Your task to perform on an android device: Open Amazon Image 0: 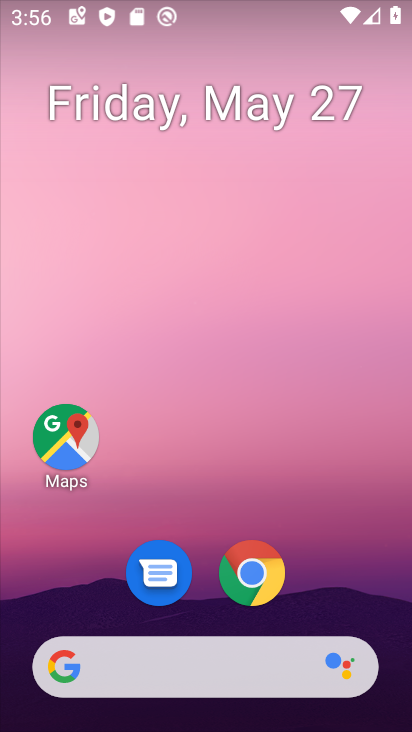
Step 0: drag from (384, 616) to (385, 222)
Your task to perform on an android device: Open Amazon Image 1: 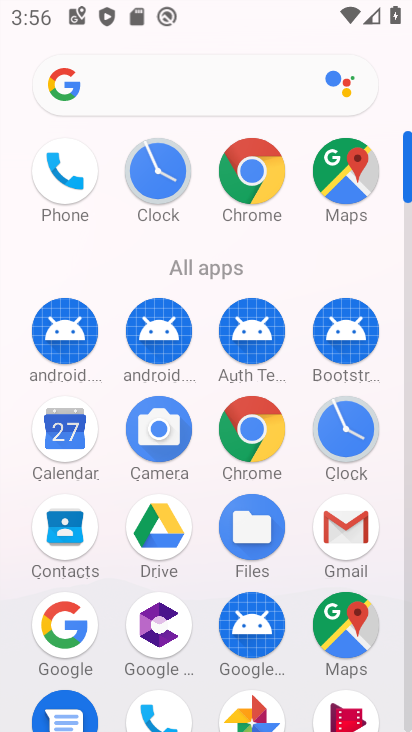
Step 1: click (274, 437)
Your task to perform on an android device: Open Amazon Image 2: 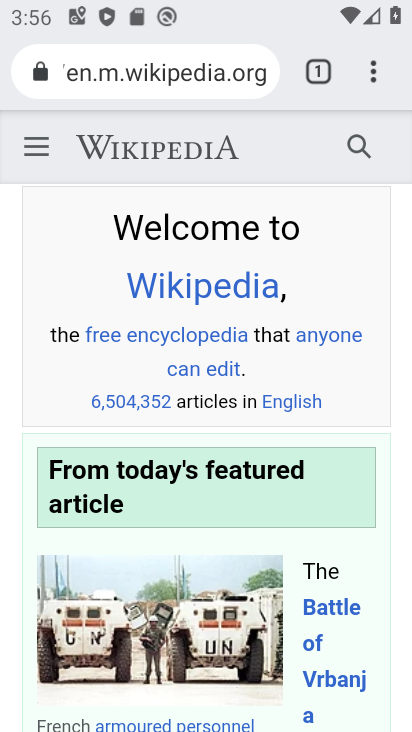
Step 2: press back button
Your task to perform on an android device: Open Amazon Image 3: 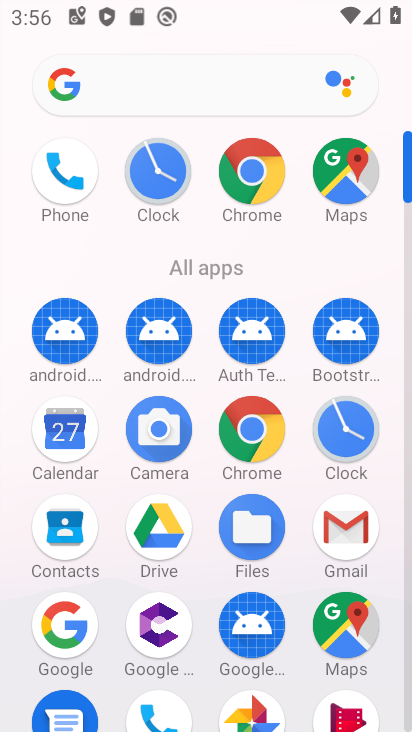
Step 3: click (272, 436)
Your task to perform on an android device: Open Amazon Image 4: 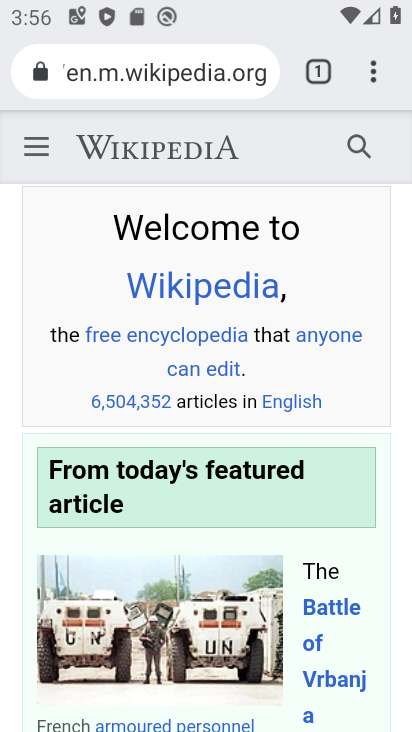
Step 4: click (249, 83)
Your task to perform on an android device: Open Amazon Image 5: 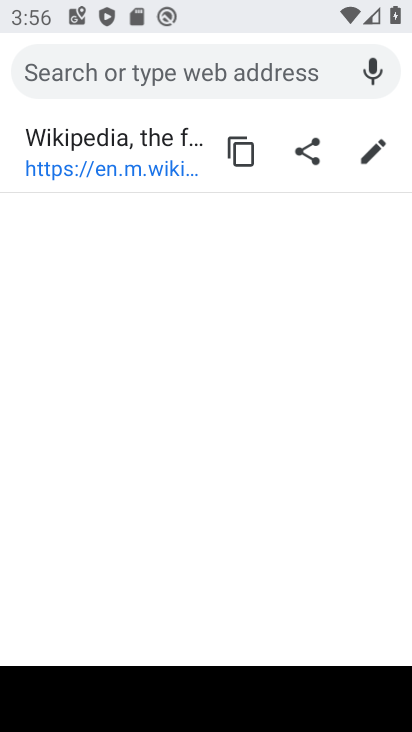
Step 5: type "amazon"
Your task to perform on an android device: Open Amazon Image 6: 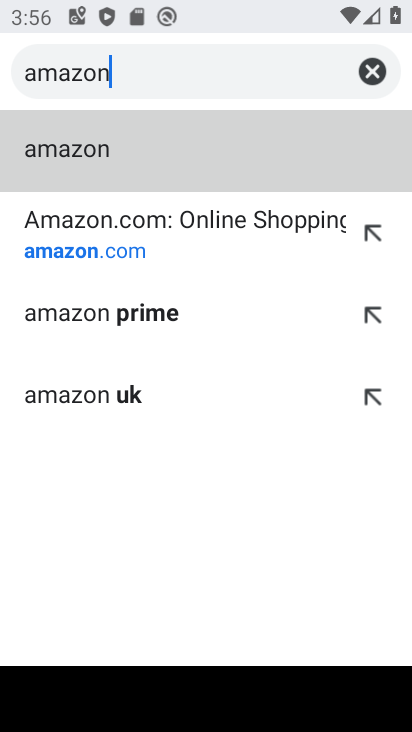
Step 6: click (270, 243)
Your task to perform on an android device: Open Amazon Image 7: 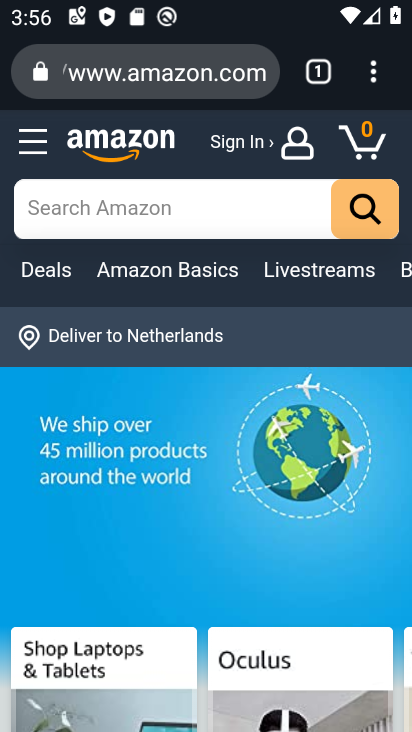
Step 7: task complete